Your task to perform on an android device: toggle data saver in the chrome app Image 0: 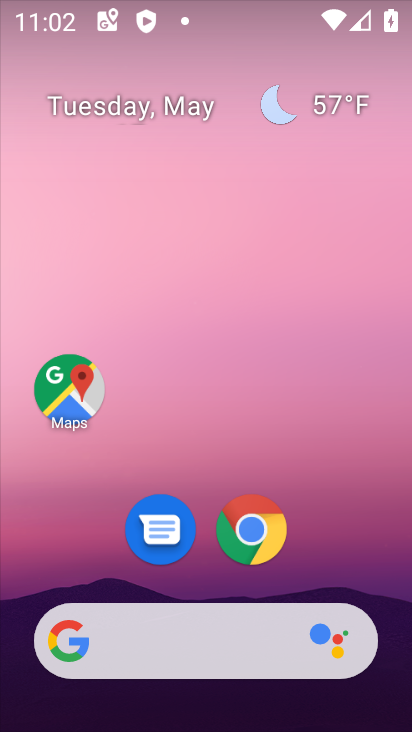
Step 0: click (254, 545)
Your task to perform on an android device: toggle data saver in the chrome app Image 1: 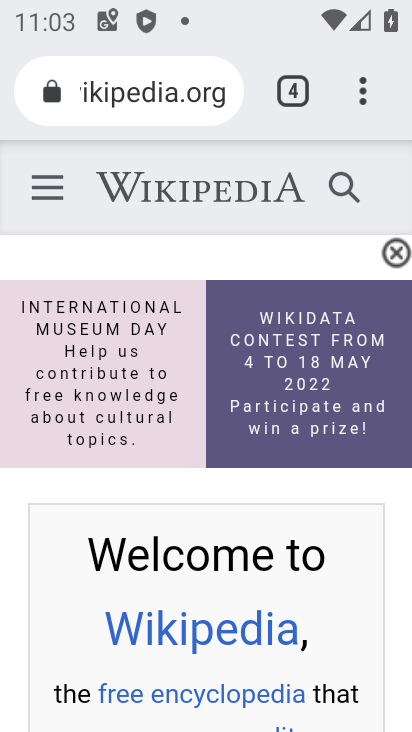
Step 1: click (388, 90)
Your task to perform on an android device: toggle data saver in the chrome app Image 2: 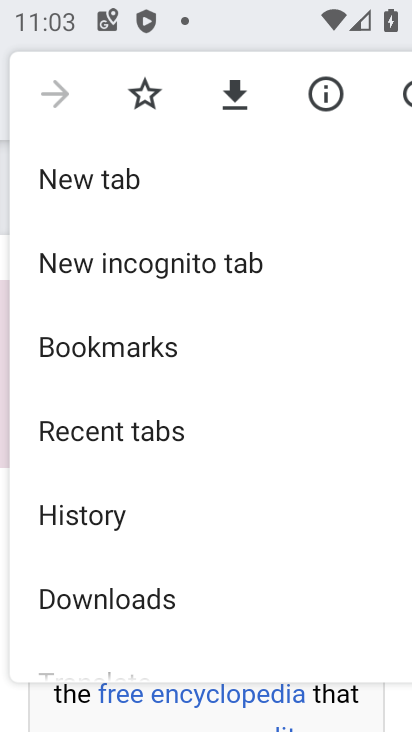
Step 2: drag from (101, 655) to (250, 194)
Your task to perform on an android device: toggle data saver in the chrome app Image 3: 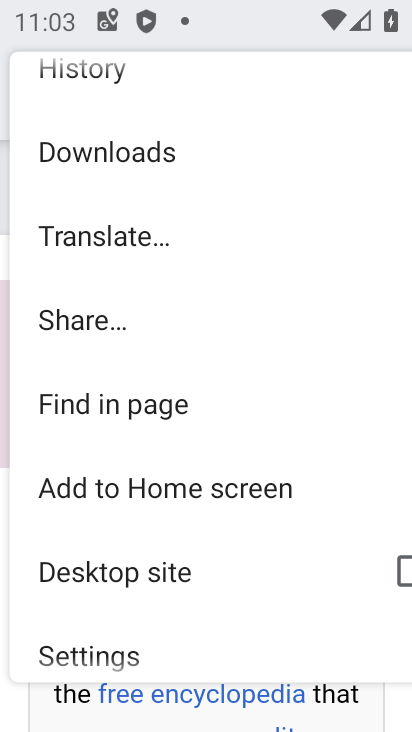
Step 3: drag from (94, 630) to (152, 222)
Your task to perform on an android device: toggle data saver in the chrome app Image 4: 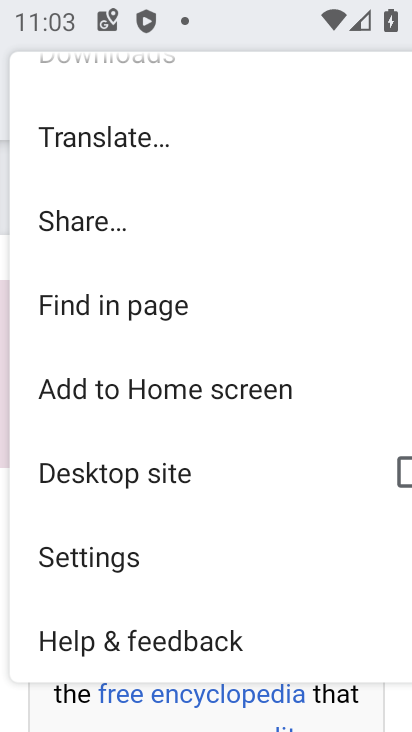
Step 4: drag from (115, 599) to (245, 179)
Your task to perform on an android device: toggle data saver in the chrome app Image 5: 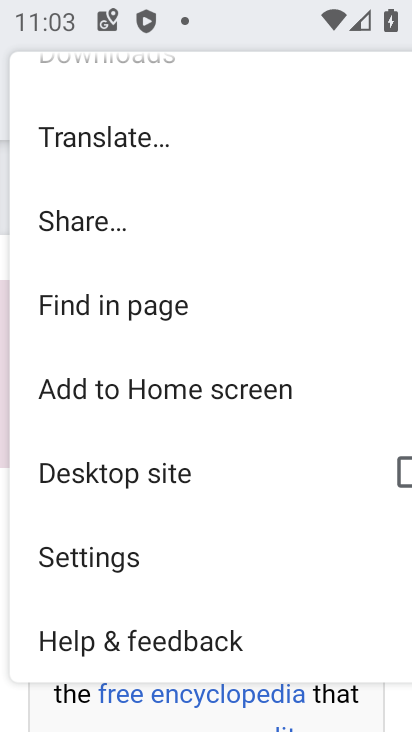
Step 5: click (134, 525)
Your task to perform on an android device: toggle data saver in the chrome app Image 6: 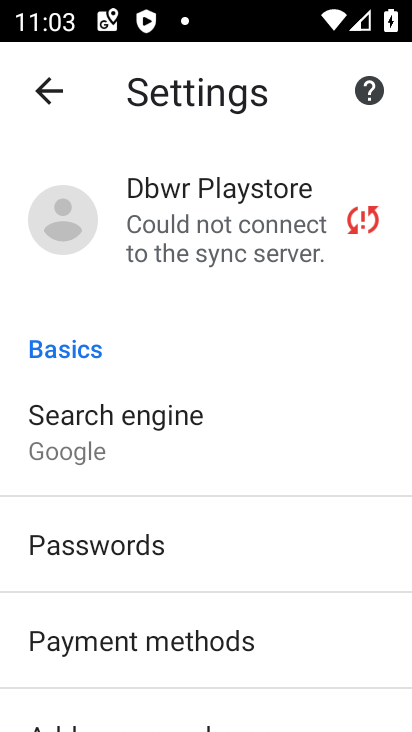
Step 6: drag from (167, 656) to (220, 135)
Your task to perform on an android device: toggle data saver in the chrome app Image 7: 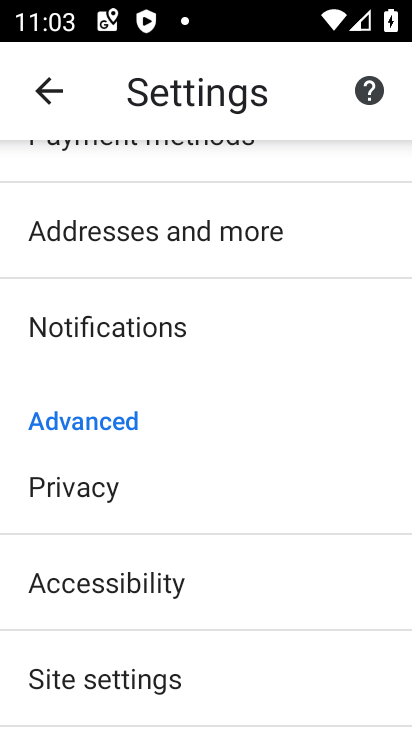
Step 7: drag from (138, 614) to (219, 270)
Your task to perform on an android device: toggle data saver in the chrome app Image 8: 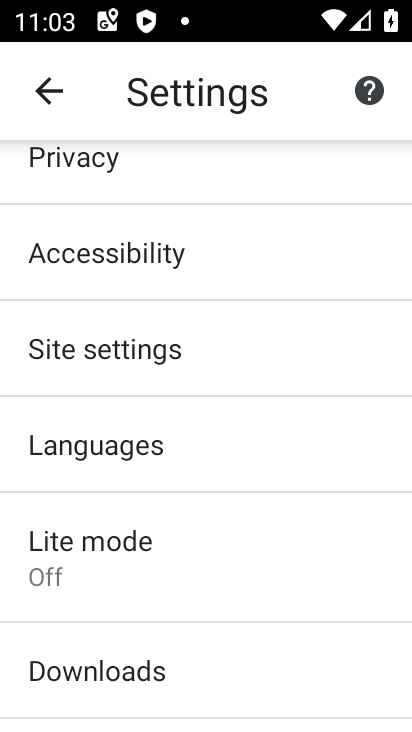
Step 8: click (85, 560)
Your task to perform on an android device: toggle data saver in the chrome app Image 9: 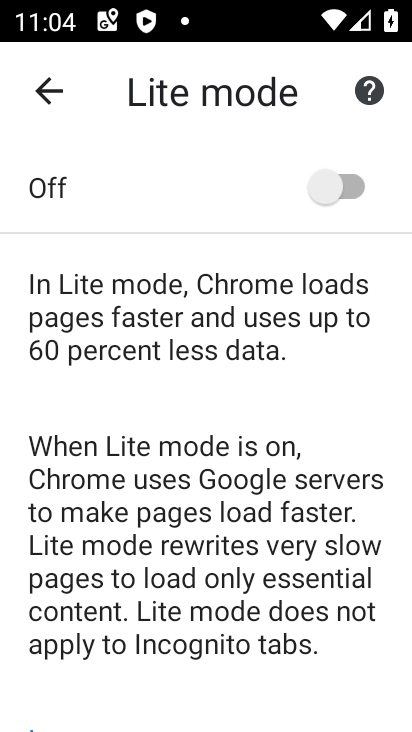
Step 9: click (345, 175)
Your task to perform on an android device: toggle data saver in the chrome app Image 10: 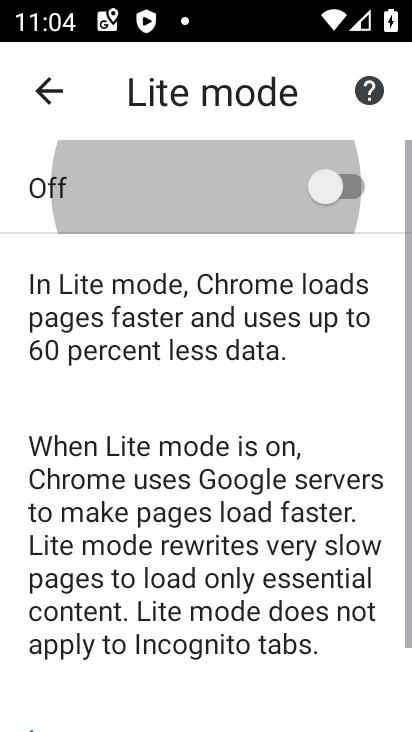
Step 10: click (345, 175)
Your task to perform on an android device: toggle data saver in the chrome app Image 11: 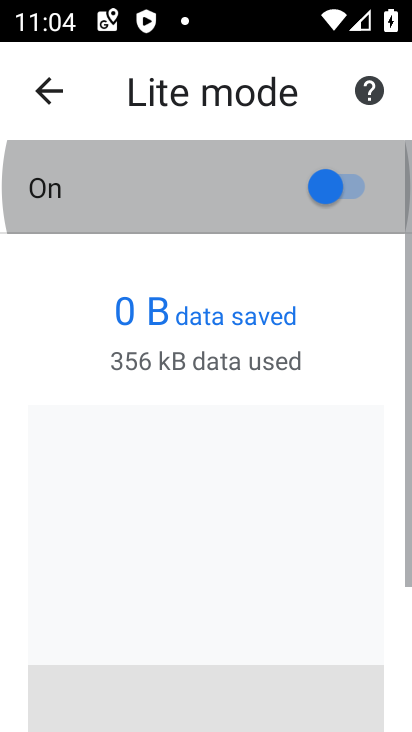
Step 11: click (345, 175)
Your task to perform on an android device: toggle data saver in the chrome app Image 12: 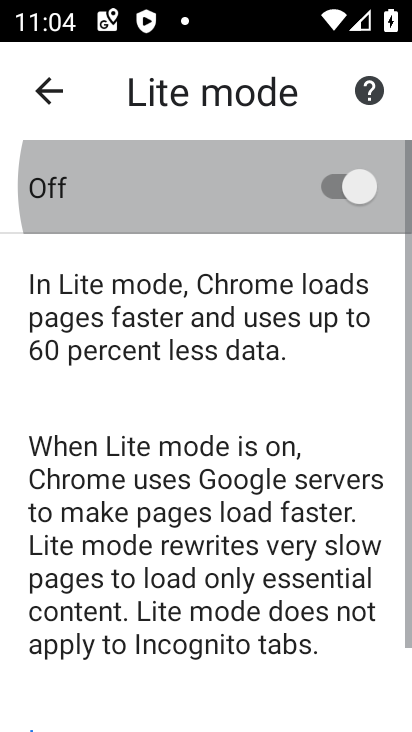
Step 12: click (345, 175)
Your task to perform on an android device: toggle data saver in the chrome app Image 13: 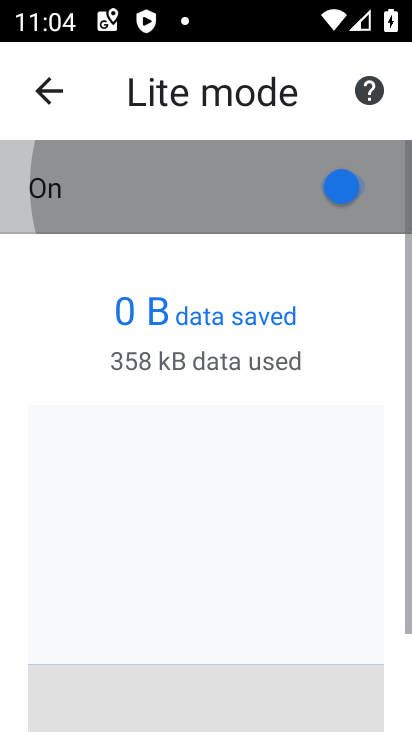
Step 13: click (345, 175)
Your task to perform on an android device: toggle data saver in the chrome app Image 14: 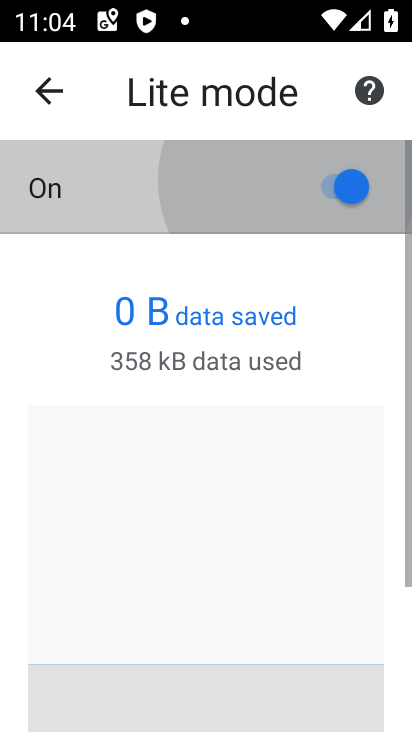
Step 14: click (345, 175)
Your task to perform on an android device: toggle data saver in the chrome app Image 15: 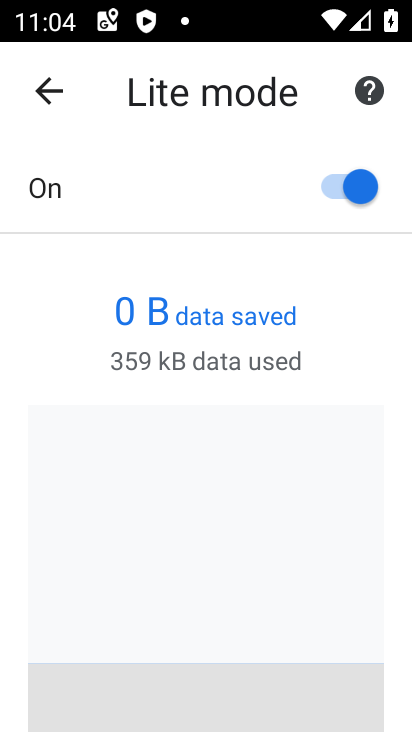
Step 15: task complete